Your task to perform on an android device: install app "Roku - Official Remote Control" Image 0: 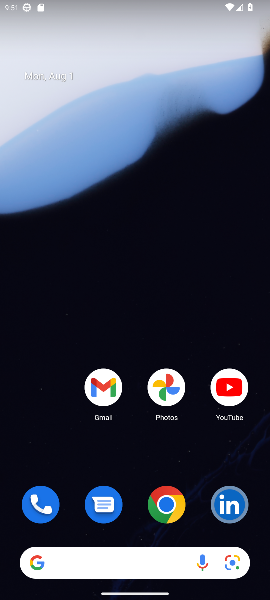
Step 0: drag from (131, 476) to (174, 3)
Your task to perform on an android device: install app "Roku - Official Remote Control" Image 1: 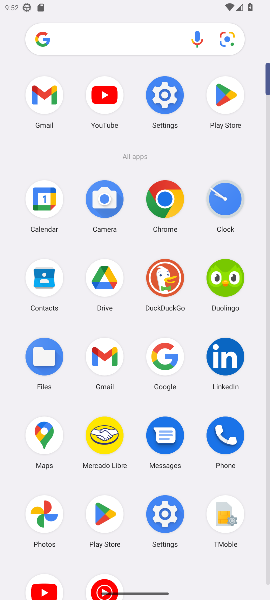
Step 1: click (233, 82)
Your task to perform on an android device: install app "Roku - Official Remote Control" Image 2: 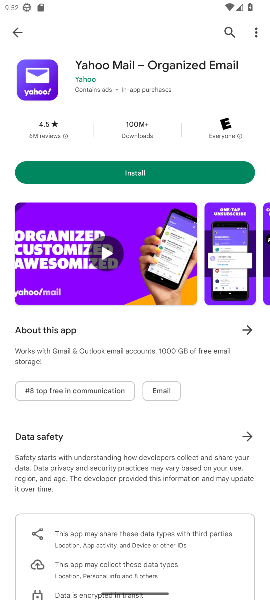
Step 2: click (230, 25)
Your task to perform on an android device: install app "Roku - Official Remote Control" Image 3: 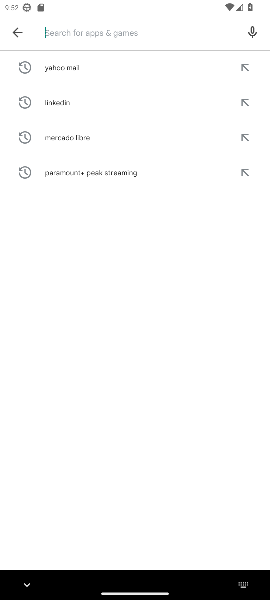
Step 3: type "roku - official remote control"
Your task to perform on an android device: install app "Roku - Official Remote Control" Image 4: 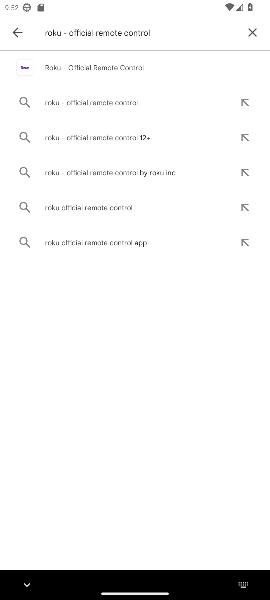
Step 4: click (184, 62)
Your task to perform on an android device: install app "Roku - Official Remote Control" Image 5: 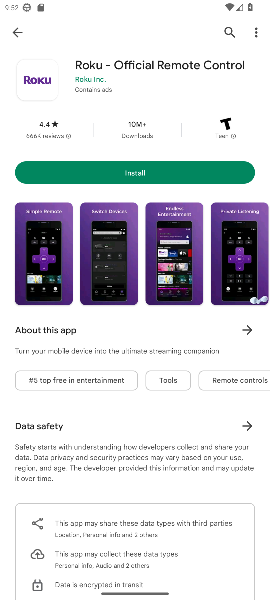
Step 5: click (146, 180)
Your task to perform on an android device: install app "Roku - Official Remote Control" Image 6: 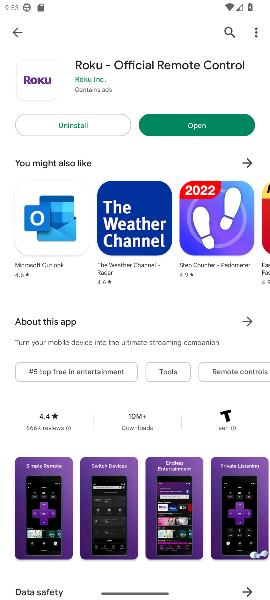
Step 6: task complete